Your task to perform on an android device: remove spam from my inbox in the gmail app Image 0: 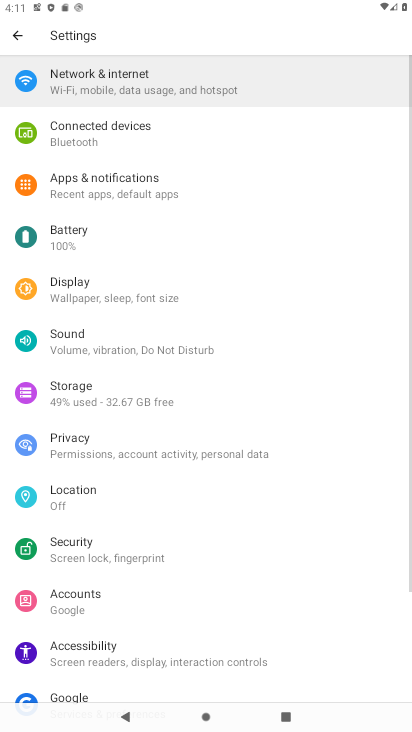
Step 0: press home button
Your task to perform on an android device: remove spam from my inbox in the gmail app Image 1: 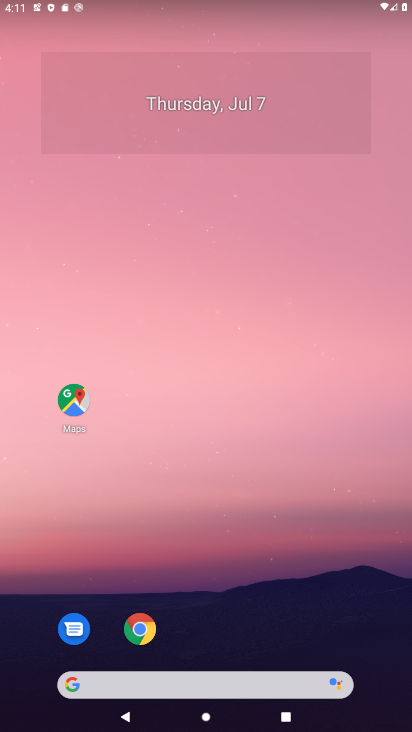
Step 1: drag from (198, 619) to (282, 207)
Your task to perform on an android device: remove spam from my inbox in the gmail app Image 2: 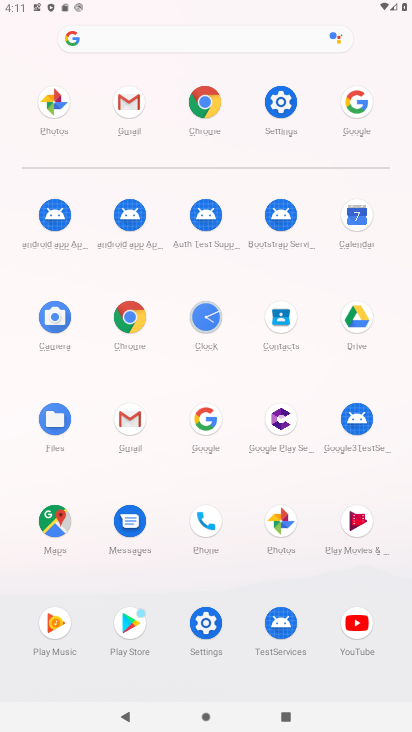
Step 2: click (132, 103)
Your task to perform on an android device: remove spam from my inbox in the gmail app Image 3: 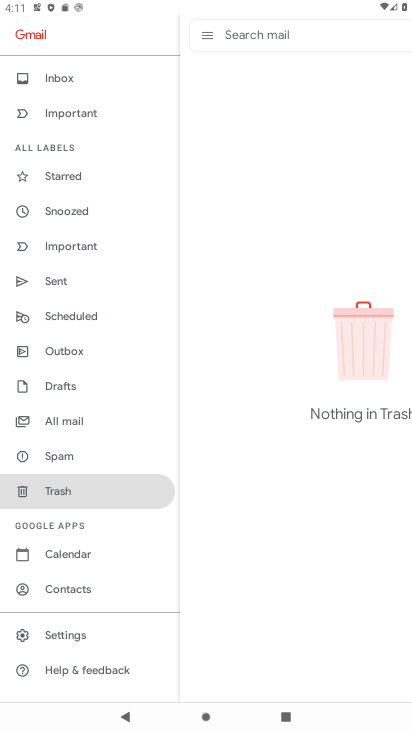
Step 3: click (76, 455)
Your task to perform on an android device: remove spam from my inbox in the gmail app Image 4: 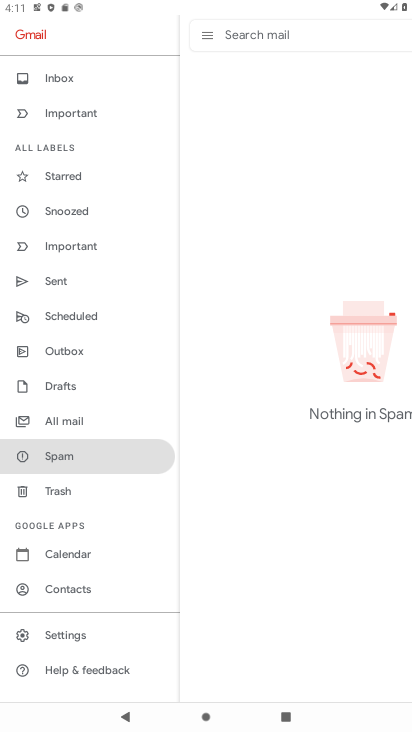
Step 4: task complete